Your task to perform on an android device: Go to internet settings Image 0: 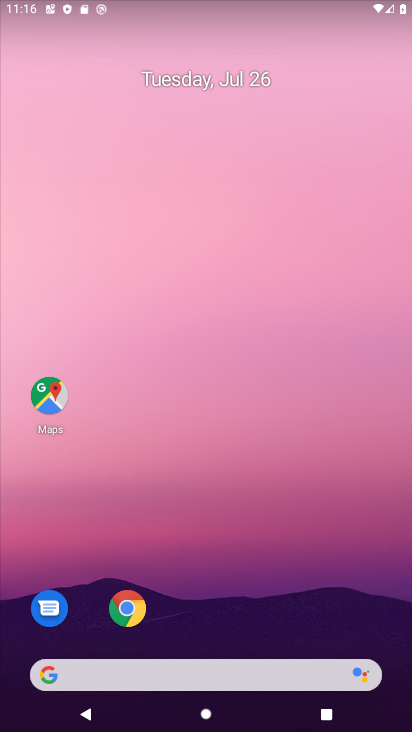
Step 0: drag from (230, 609) to (230, 80)
Your task to perform on an android device: Go to internet settings Image 1: 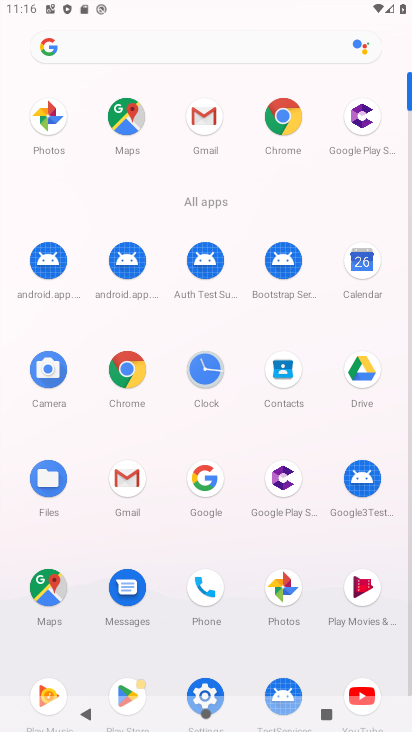
Step 1: click (198, 689)
Your task to perform on an android device: Go to internet settings Image 2: 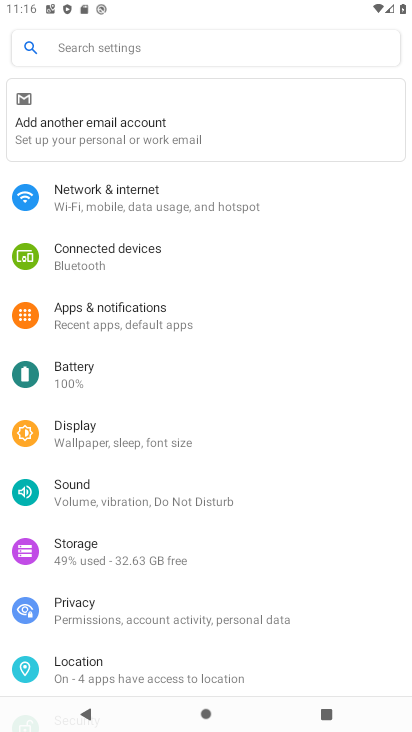
Step 2: click (133, 203)
Your task to perform on an android device: Go to internet settings Image 3: 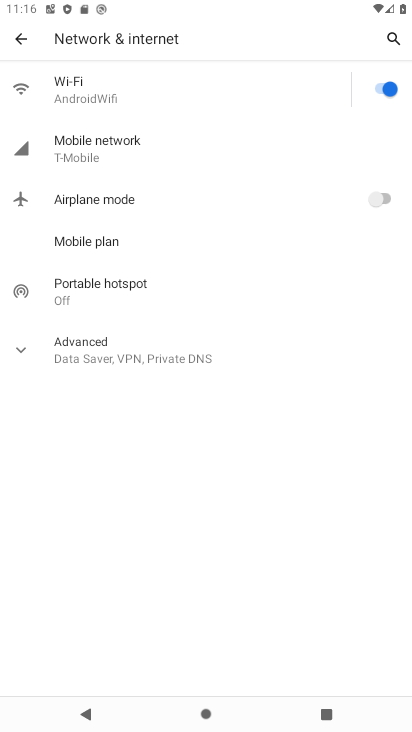
Step 3: click (141, 155)
Your task to perform on an android device: Go to internet settings Image 4: 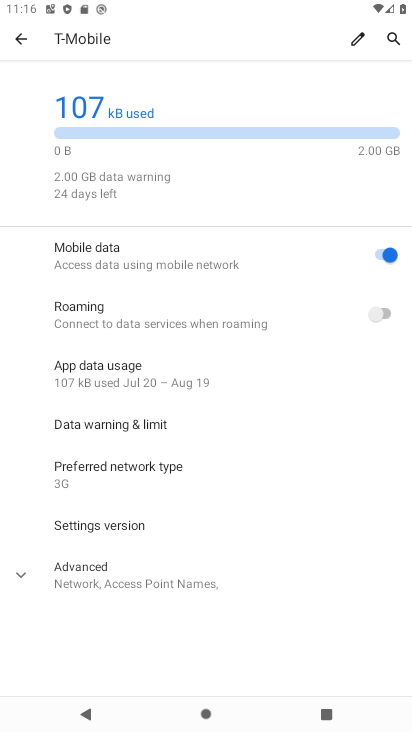
Step 4: task complete